Your task to perform on an android device: turn on showing notifications on the lock screen Image 0: 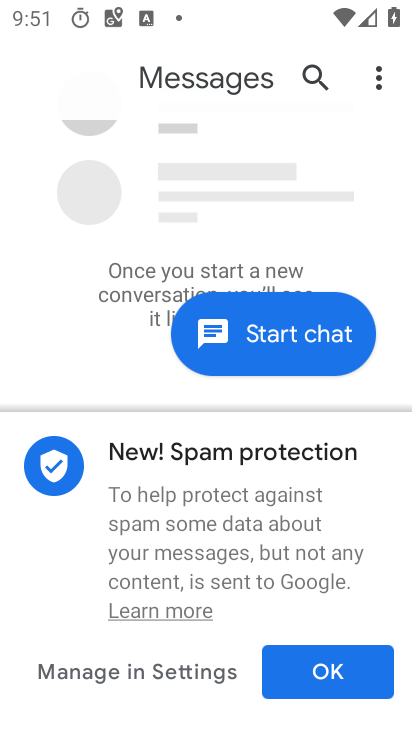
Step 0: press home button
Your task to perform on an android device: turn on showing notifications on the lock screen Image 1: 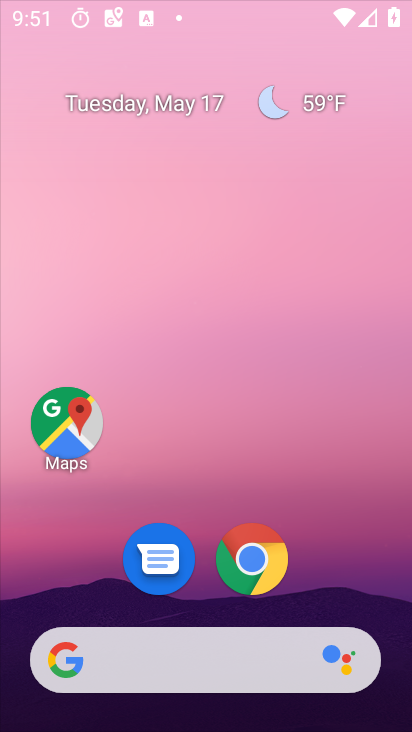
Step 1: drag from (213, 657) to (261, 152)
Your task to perform on an android device: turn on showing notifications on the lock screen Image 2: 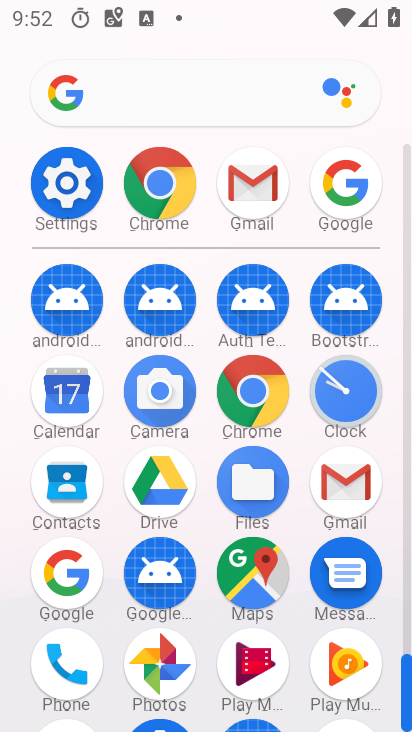
Step 2: click (66, 202)
Your task to perform on an android device: turn on showing notifications on the lock screen Image 3: 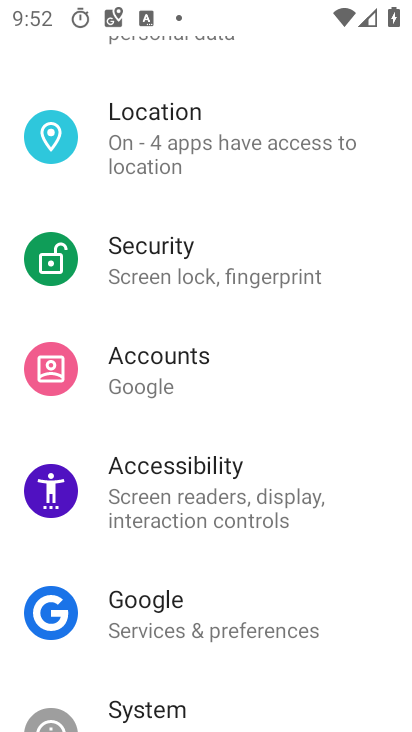
Step 3: drag from (207, 247) to (157, 724)
Your task to perform on an android device: turn on showing notifications on the lock screen Image 4: 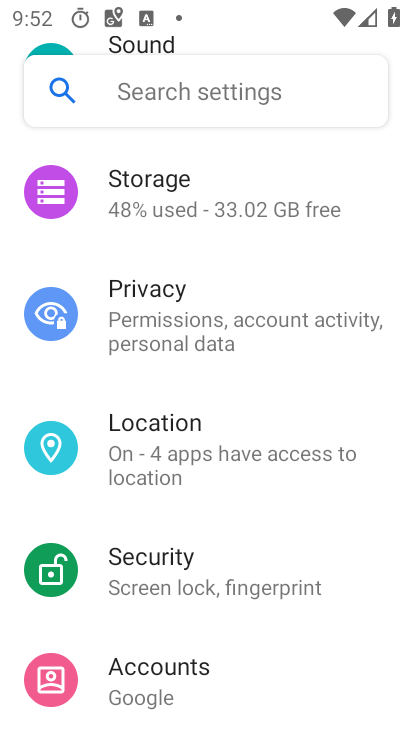
Step 4: drag from (183, 426) to (207, 727)
Your task to perform on an android device: turn on showing notifications on the lock screen Image 5: 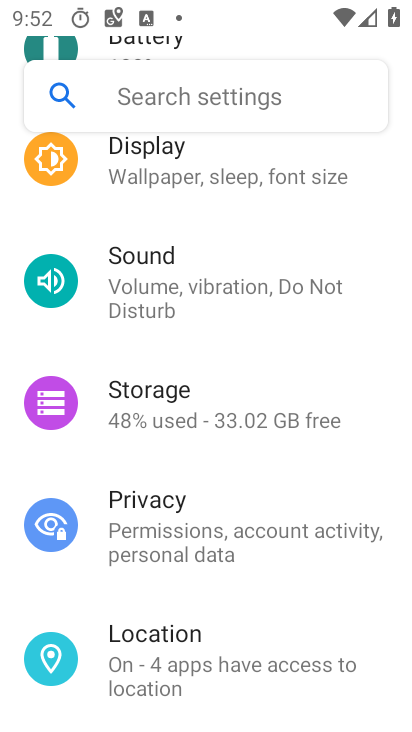
Step 5: drag from (200, 245) to (124, 721)
Your task to perform on an android device: turn on showing notifications on the lock screen Image 6: 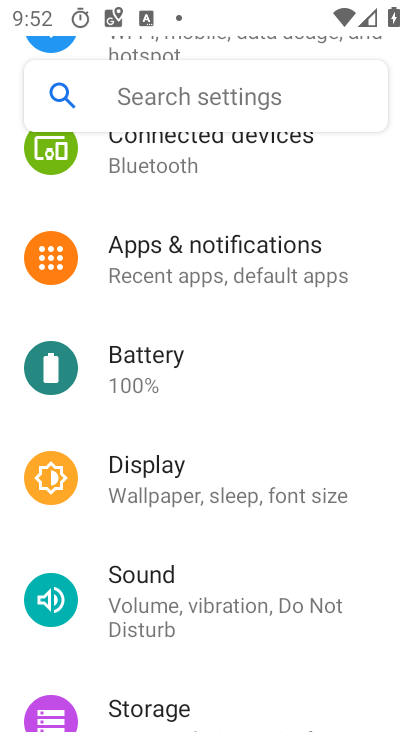
Step 6: click (195, 271)
Your task to perform on an android device: turn on showing notifications on the lock screen Image 7: 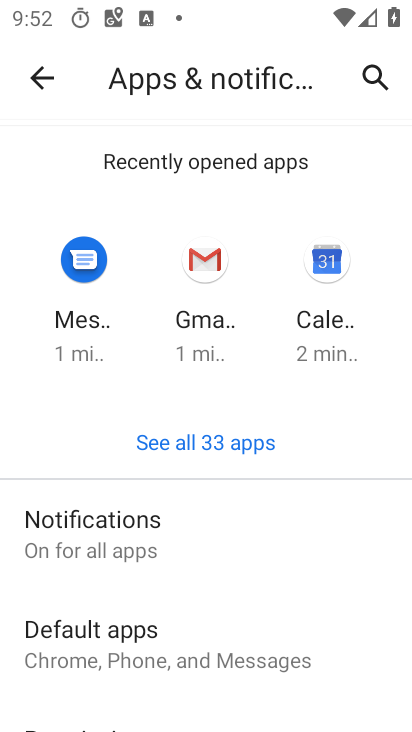
Step 7: click (75, 535)
Your task to perform on an android device: turn on showing notifications on the lock screen Image 8: 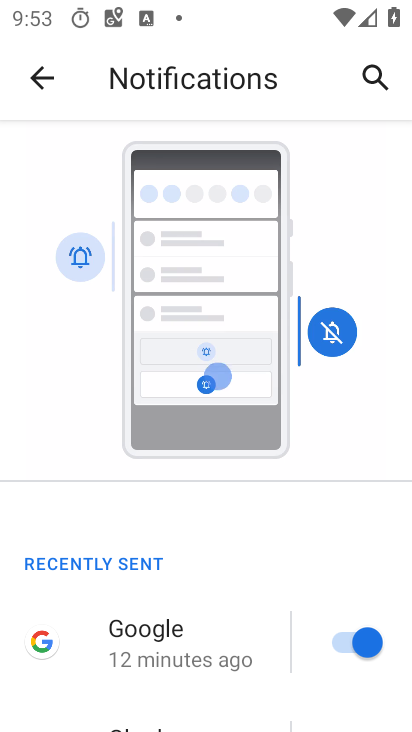
Step 8: drag from (250, 503) to (343, 150)
Your task to perform on an android device: turn on showing notifications on the lock screen Image 9: 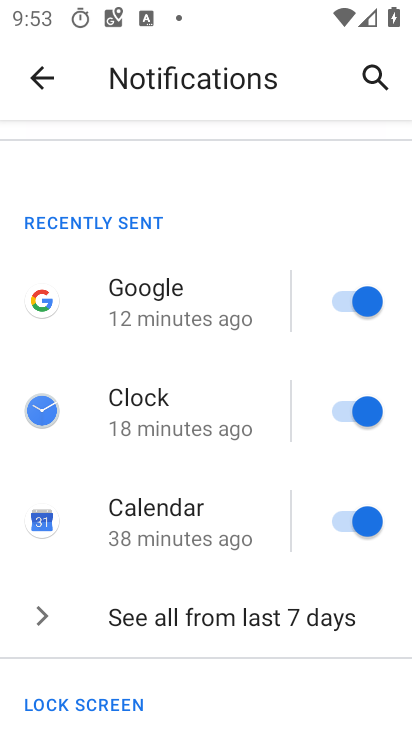
Step 9: drag from (166, 621) to (289, 181)
Your task to perform on an android device: turn on showing notifications on the lock screen Image 10: 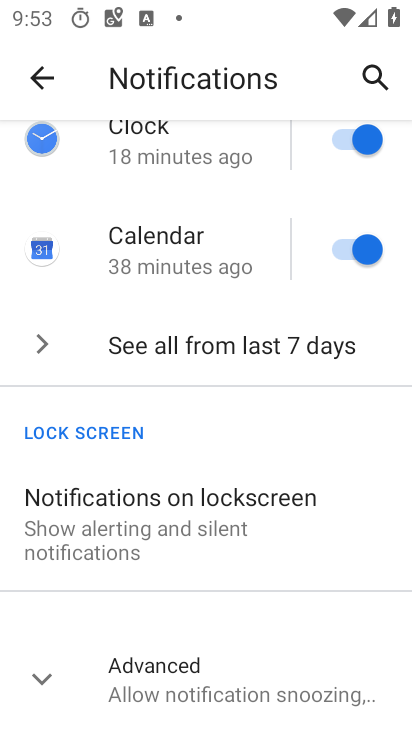
Step 10: click (226, 532)
Your task to perform on an android device: turn on showing notifications on the lock screen Image 11: 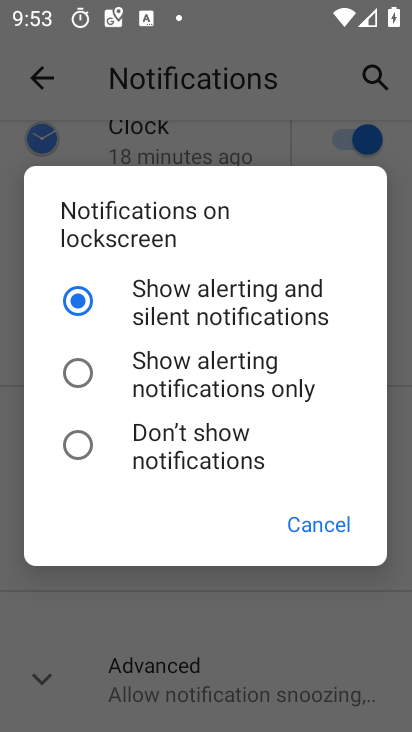
Step 11: task complete